Your task to perform on an android device: Open Google Maps Image 0: 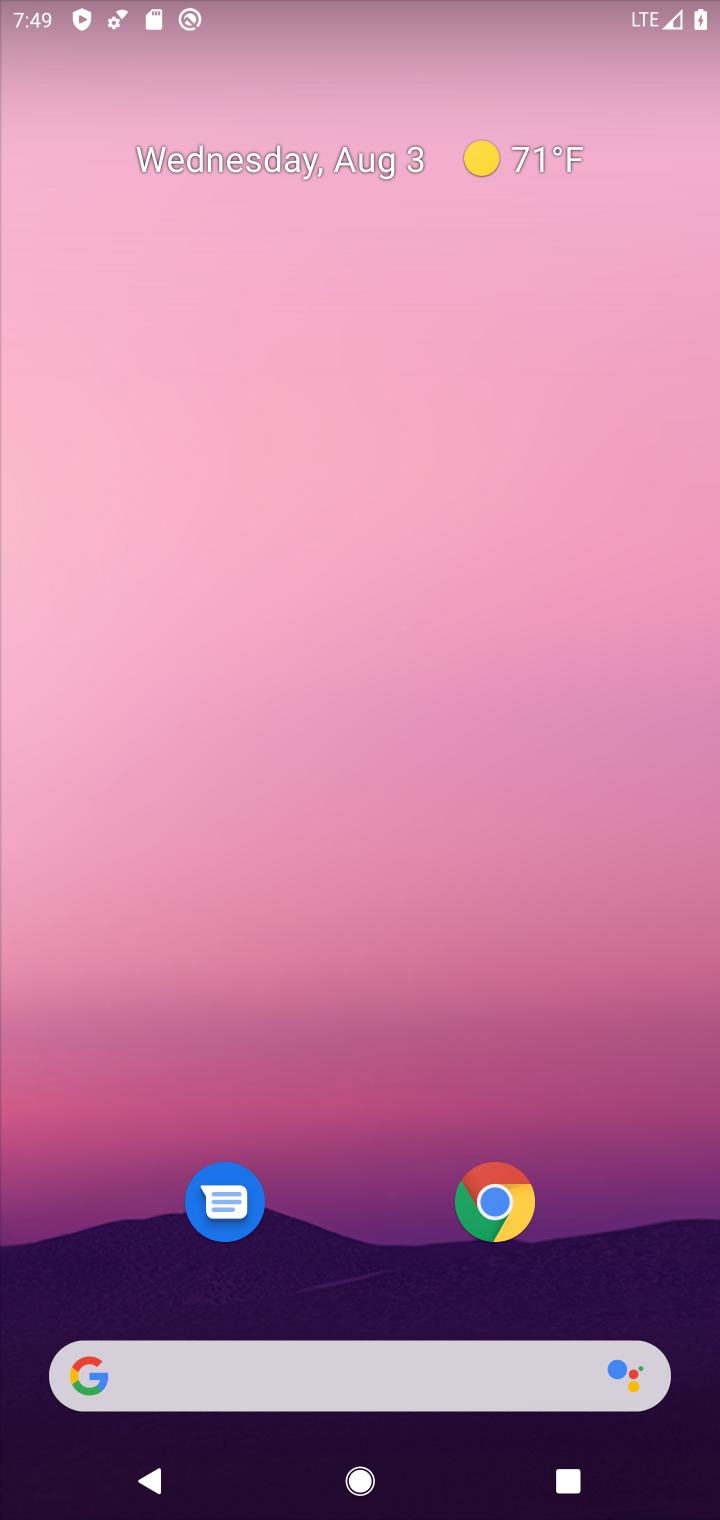
Step 0: drag from (299, 1387) to (438, 175)
Your task to perform on an android device: Open Google Maps Image 1: 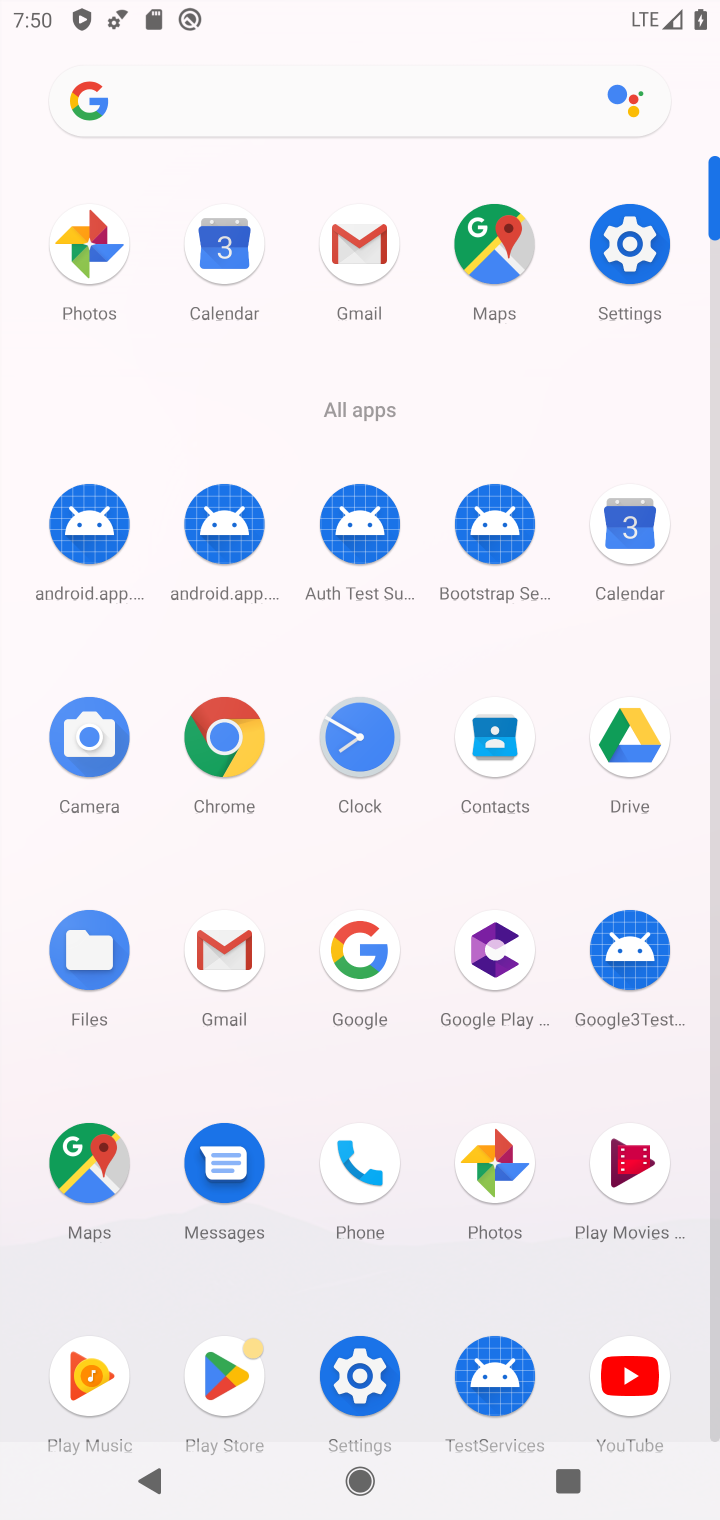
Step 1: click (497, 249)
Your task to perform on an android device: Open Google Maps Image 2: 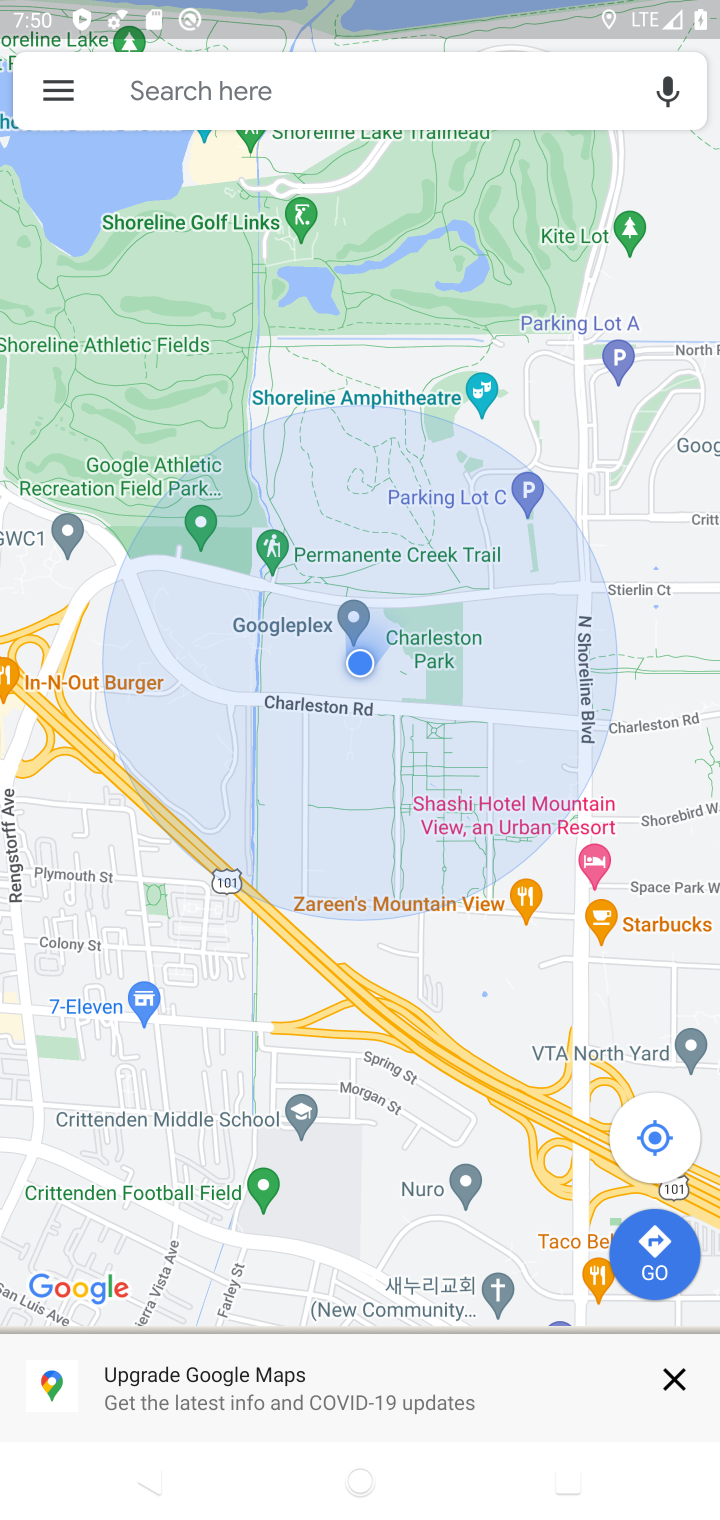
Step 2: task complete